Your task to perform on an android device: turn off sleep mode Image 0: 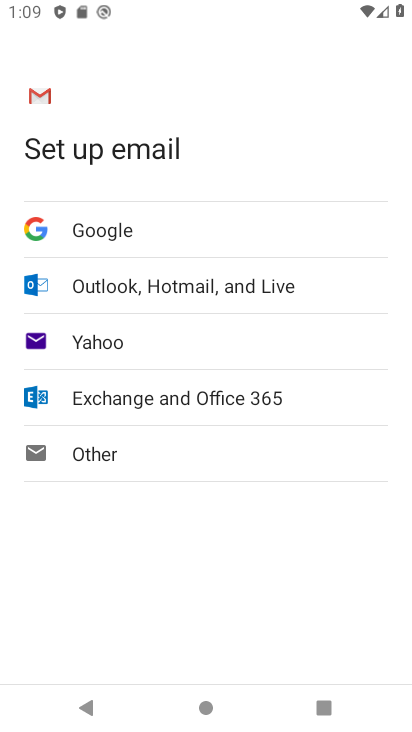
Step 0: press home button
Your task to perform on an android device: turn off sleep mode Image 1: 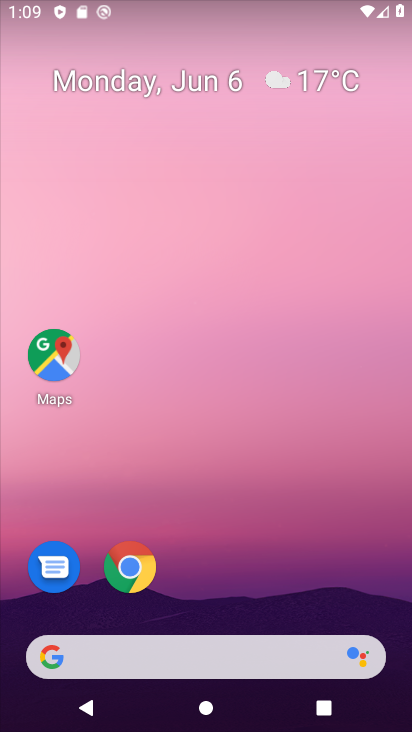
Step 1: drag from (255, 721) to (193, 4)
Your task to perform on an android device: turn off sleep mode Image 2: 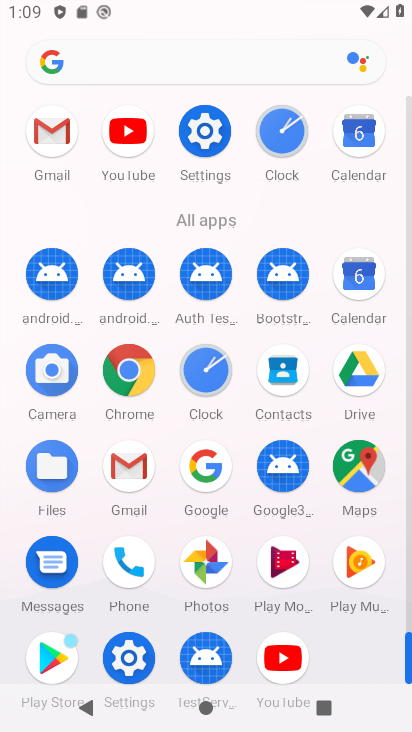
Step 2: click (203, 122)
Your task to perform on an android device: turn off sleep mode Image 3: 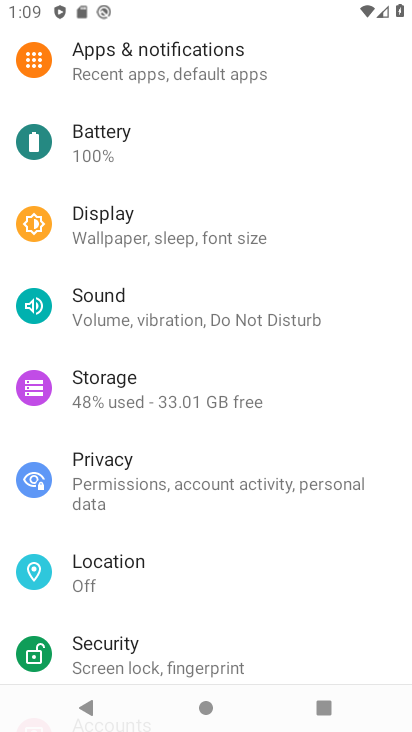
Step 3: click (236, 231)
Your task to perform on an android device: turn off sleep mode Image 4: 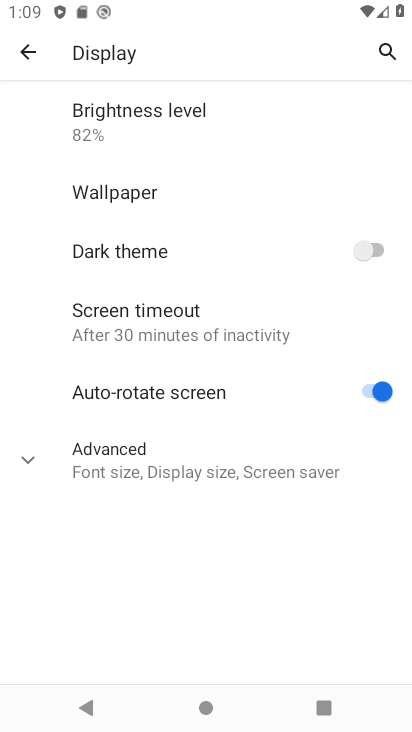
Step 4: task complete